Your task to perform on an android device: Go to battery settings Image 0: 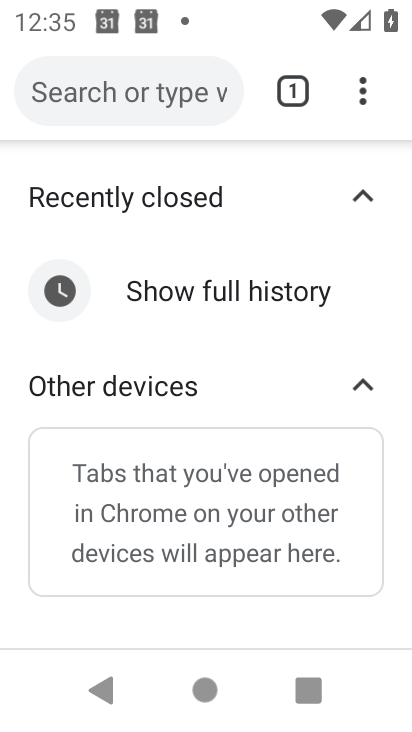
Step 0: drag from (272, 5) to (278, 374)
Your task to perform on an android device: Go to battery settings Image 1: 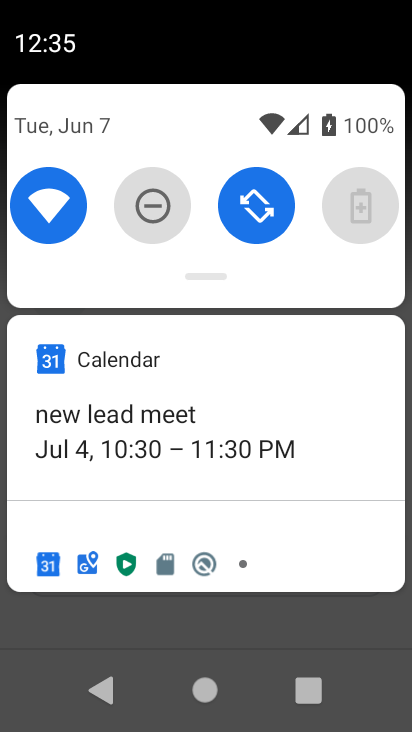
Step 1: click (356, 220)
Your task to perform on an android device: Go to battery settings Image 2: 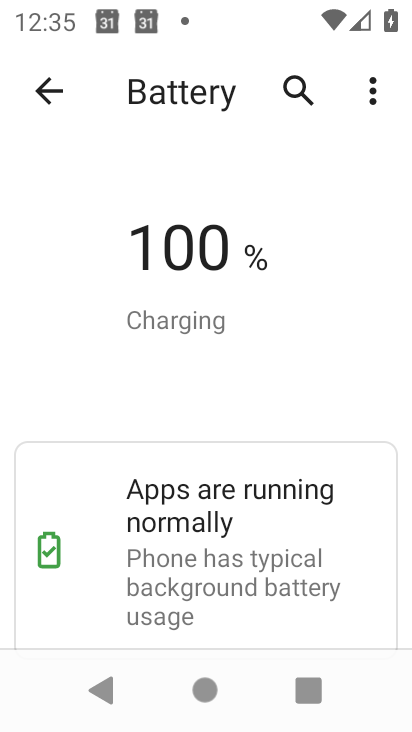
Step 2: task complete